Your task to perform on an android device: turn off javascript in the chrome app Image 0: 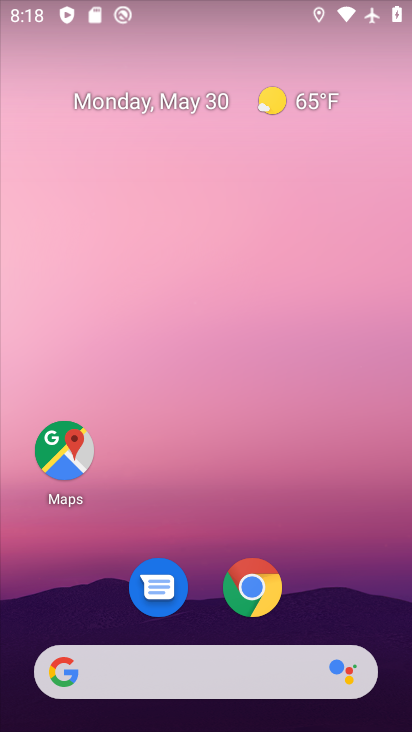
Step 0: press home button
Your task to perform on an android device: turn off javascript in the chrome app Image 1: 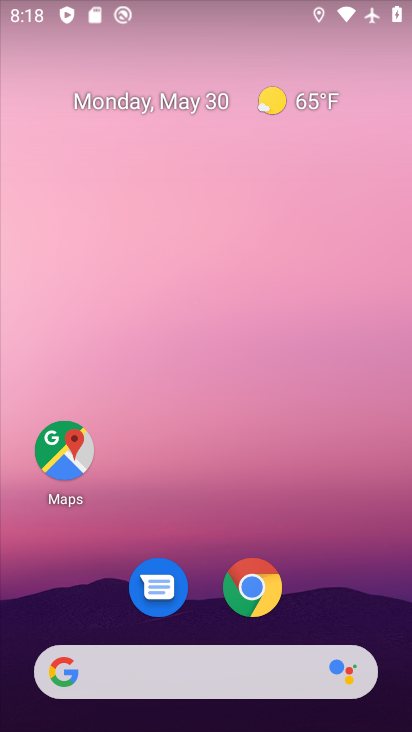
Step 1: click (254, 593)
Your task to perform on an android device: turn off javascript in the chrome app Image 2: 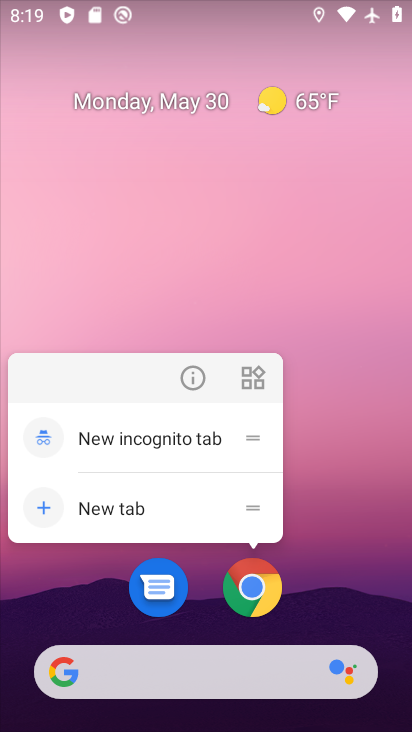
Step 2: click (261, 585)
Your task to perform on an android device: turn off javascript in the chrome app Image 3: 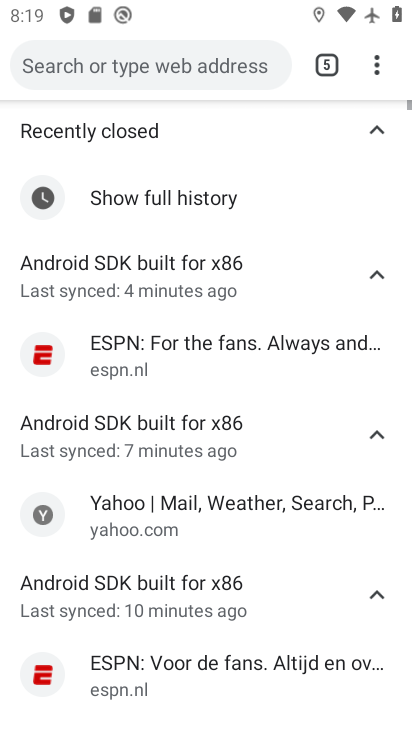
Step 3: drag from (373, 67) to (247, 549)
Your task to perform on an android device: turn off javascript in the chrome app Image 4: 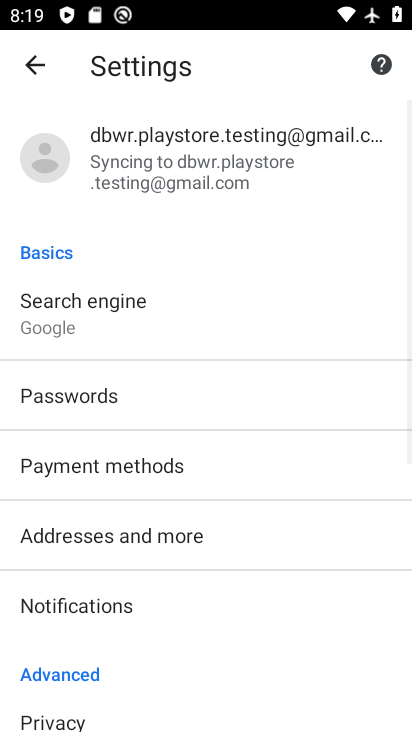
Step 4: drag from (213, 594) to (297, 169)
Your task to perform on an android device: turn off javascript in the chrome app Image 5: 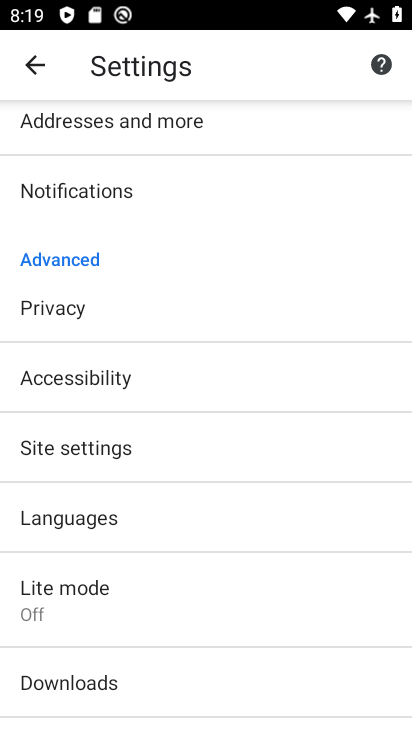
Step 5: click (123, 442)
Your task to perform on an android device: turn off javascript in the chrome app Image 6: 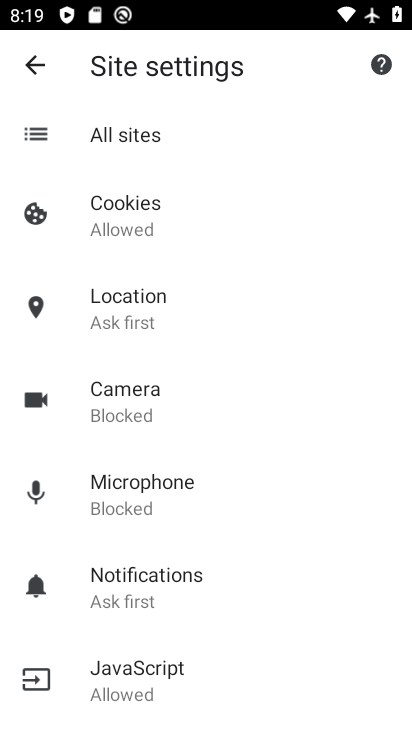
Step 6: click (178, 676)
Your task to perform on an android device: turn off javascript in the chrome app Image 7: 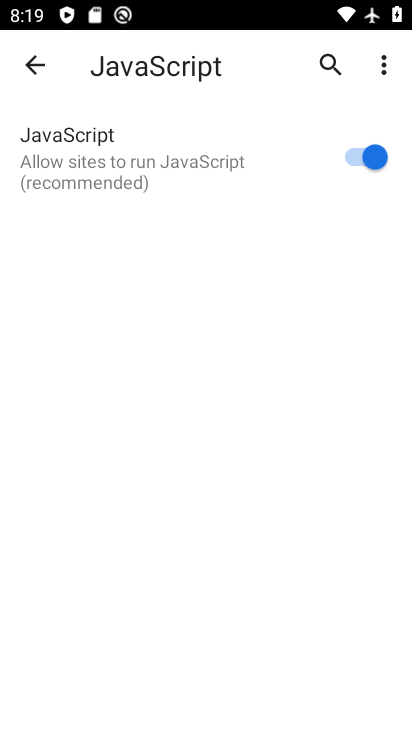
Step 7: click (359, 154)
Your task to perform on an android device: turn off javascript in the chrome app Image 8: 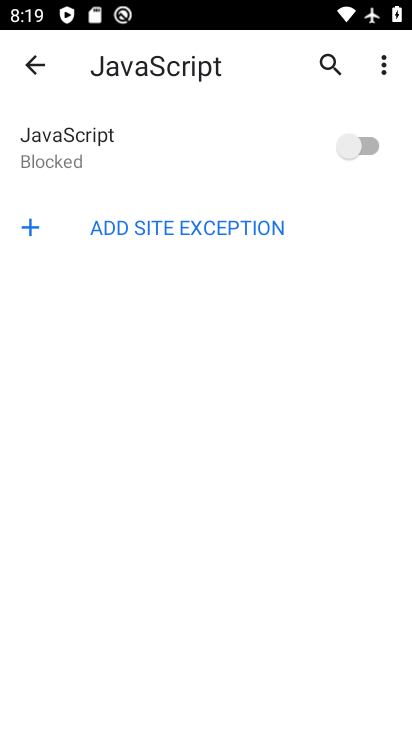
Step 8: task complete